Your task to perform on an android device: turn off wifi Image 0: 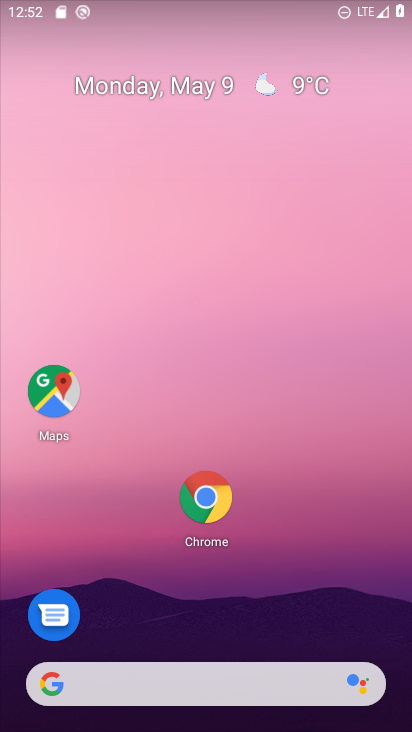
Step 0: drag from (326, 617) to (300, 94)
Your task to perform on an android device: turn off wifi Image 1: 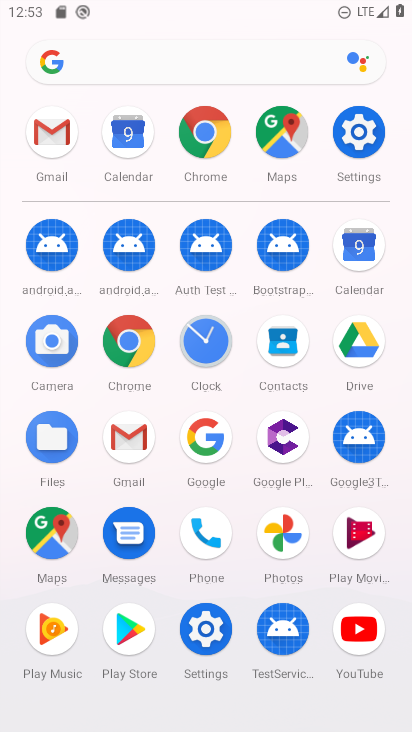
Step 1: click (372, 132)
Your task to perform on an android device: turn off wifi Image 2: 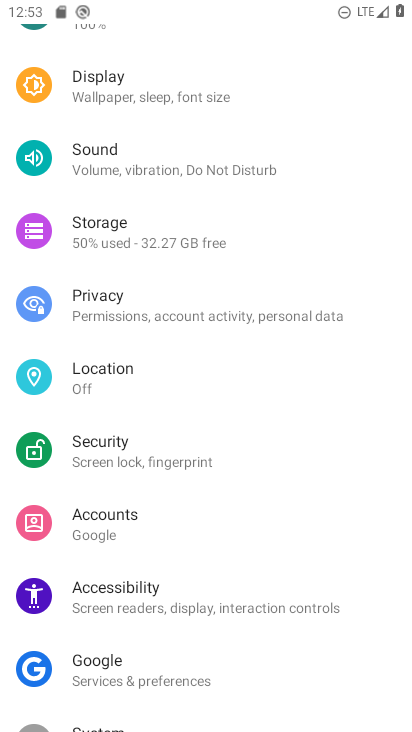
Step 2: drag from (218, 189) to (302, 618)
Your task to perform on an android device: turn off wifi Image 3: 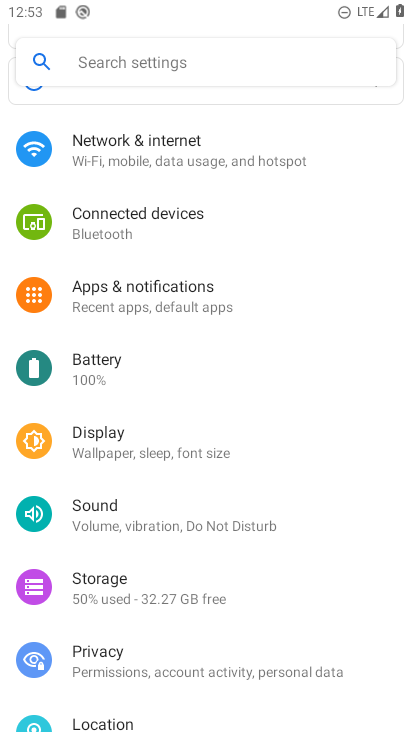
Step 3: click (185, 163)
Your task to perform on an android device: turn off wifi Image 4: 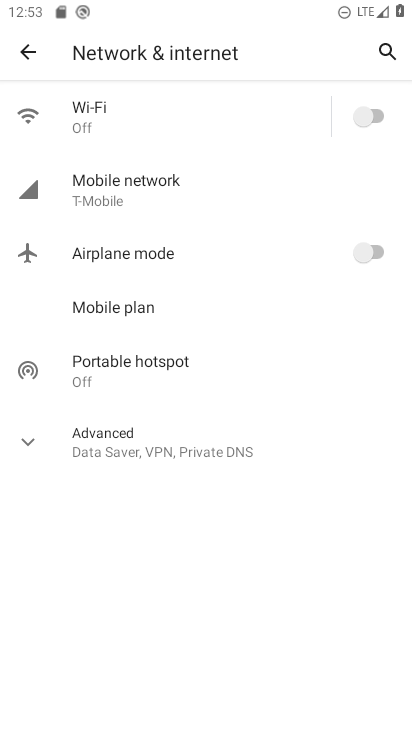
Step 4: click (174, 116)
Your task to perform on an android device: turn off wifi Image 5: 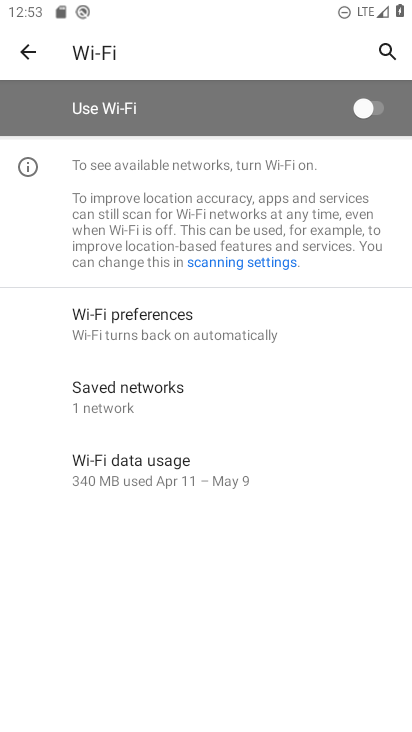
Step 5: task complete